Your task to perform on an android device: Open Android settings Image 0: 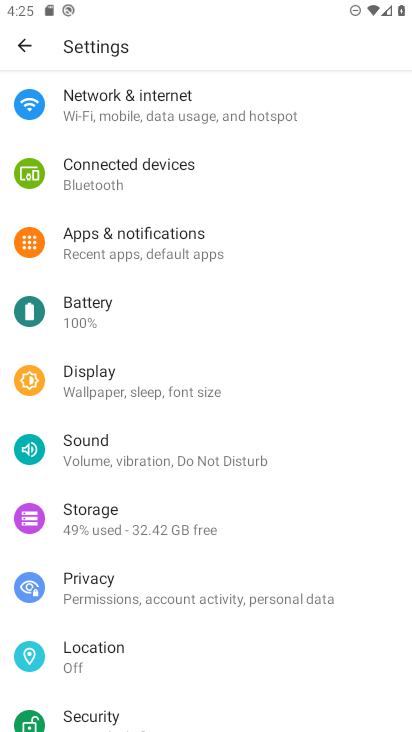
Step 0: press home button
Your task to perform on an android device: Open Android settings Image 1: 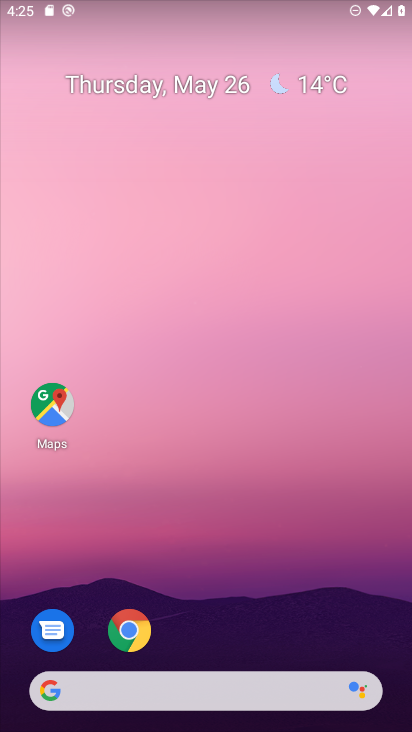
Step 1: drag from (213, 581) to (187, 140)
Your task to perform on an android device: Open Android settings Image 2: 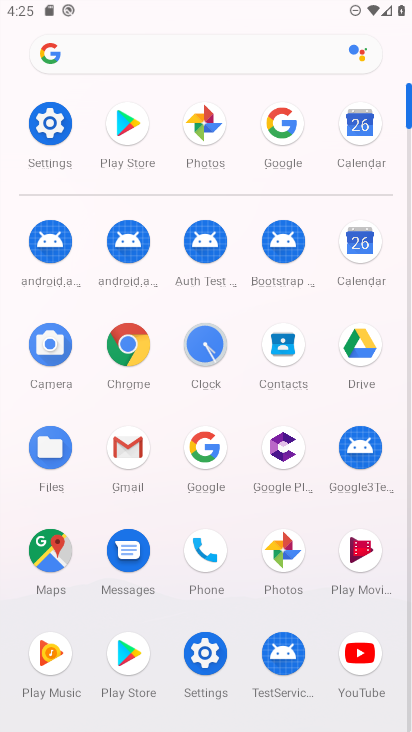
Step 2: click (49, 124)
Your task to perform on an android device: Open Android settings Image 3: 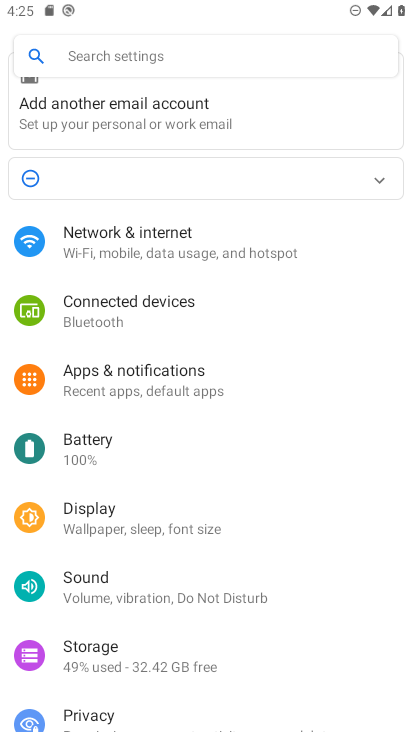
Step 3: task complete